Your task to perform on an android device: allow cookies in the chrome app Image 0: 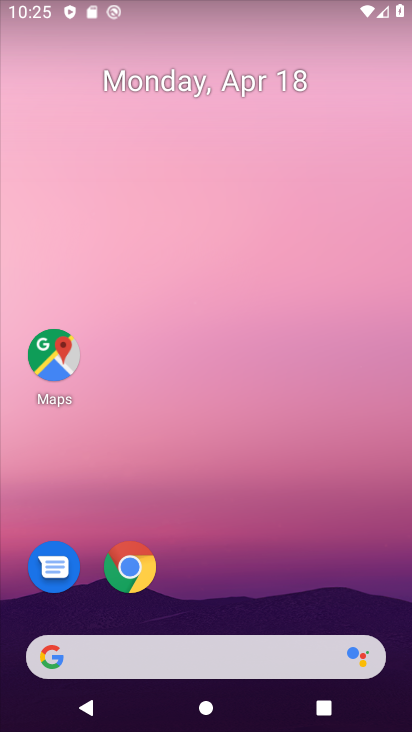
Step 0: click (137, 589)
Your task to perform on an android device: allow cookies in the chrome app Image 1: 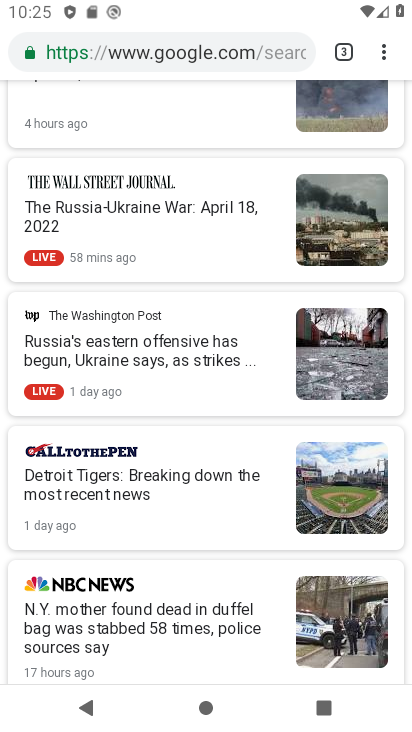
Step 1: click (384, 55)
Your task to perform on an android device: allow cookies in the chrome app Image 2: 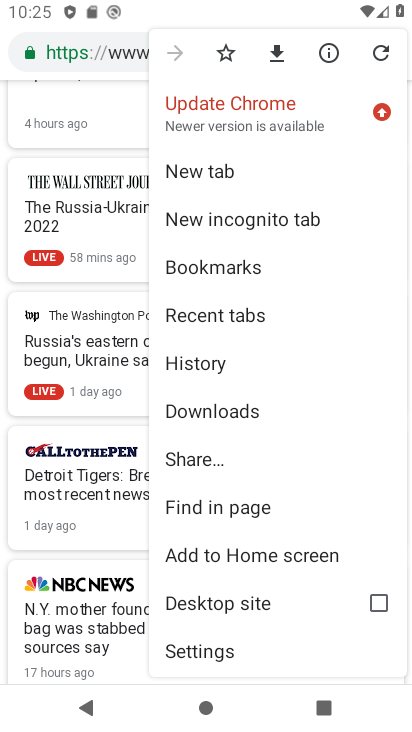
Step 2: click (203, 654)
Your task to perform on an android device: allow cookies in the chrome app Image 3: 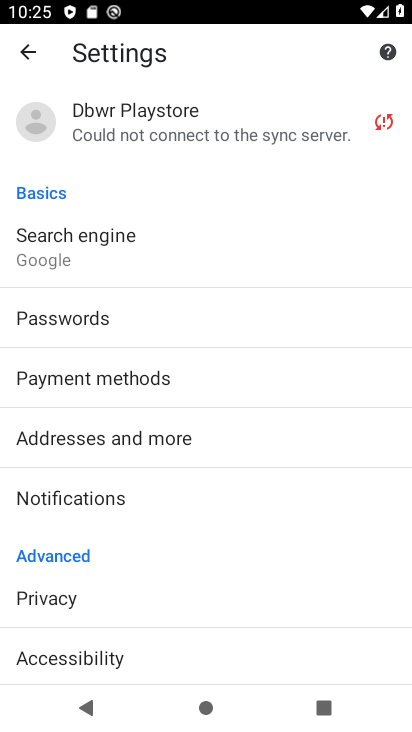
Step 3: drag from (56, 642) to (108, 313)
Your task to perform on an android device: allow cookies in the chrome app Image 4: 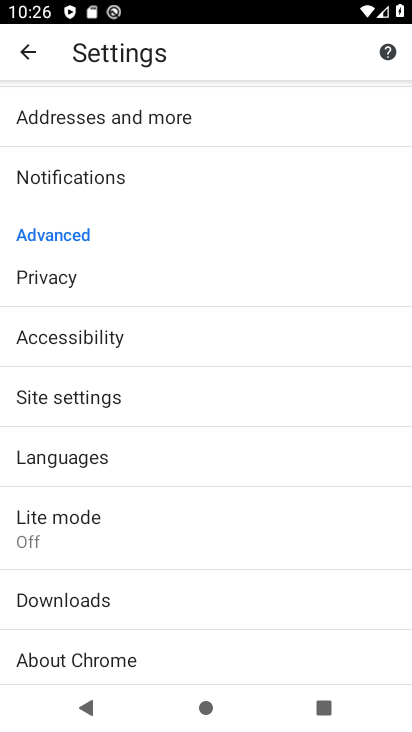
Step 4: click (53, 402)
Your task to perform on an android device: allow cookies in the chrome app Image 5: 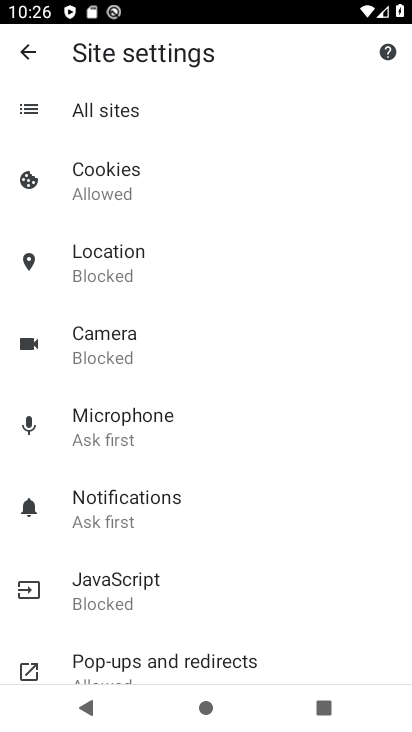
Step 5: click (122, 190)
Your task to perform on an android device: allow cookies in the chrome app Image 6: 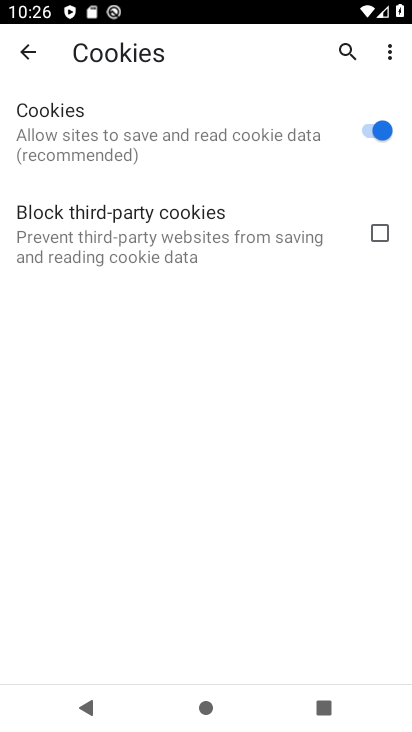
Step 6: task complete